Your task to perform on an android device: Open Google Chrome and open the bookmarks view Image 0: 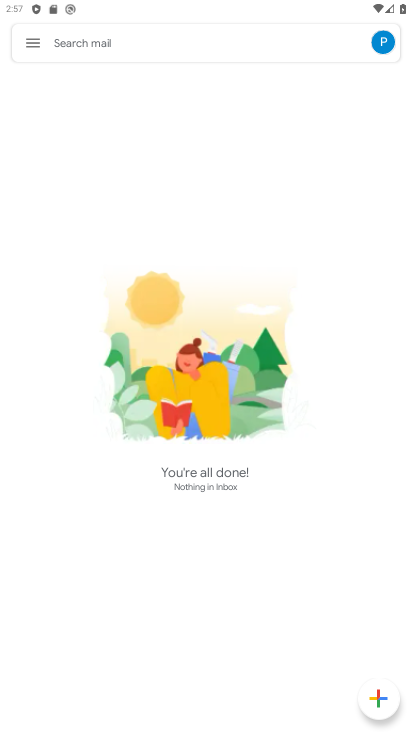
Step 0: press home button
Your task to perform on an android device: Open Google Chrome and open the bookmarks view Image 1: 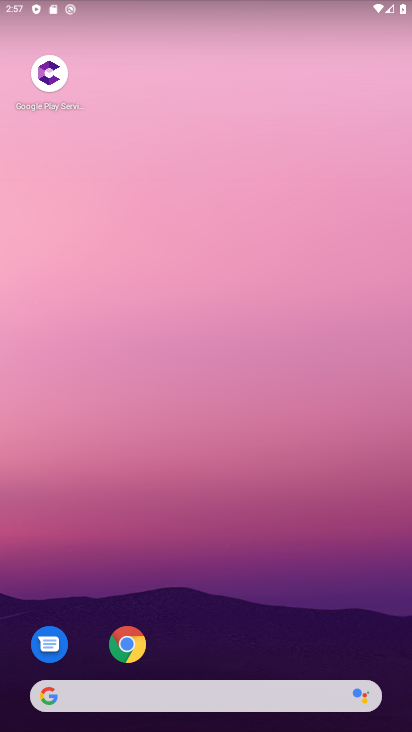
Step 1: drag from (338, 296) to (279, 46)
Your task to perform on an android device: Open Google Chrome and open the bookmarks view Image 2: 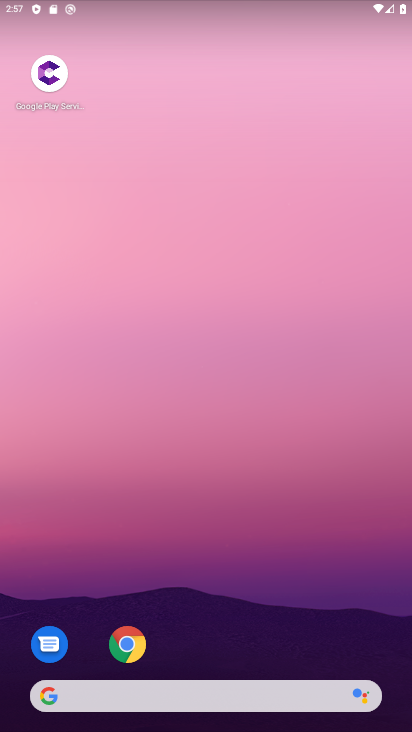
Step 2: drag from (272, 591) to (217, 114)
Your task to perform on an android device: Open Google Chrome and open the bookmarks view Image 3: 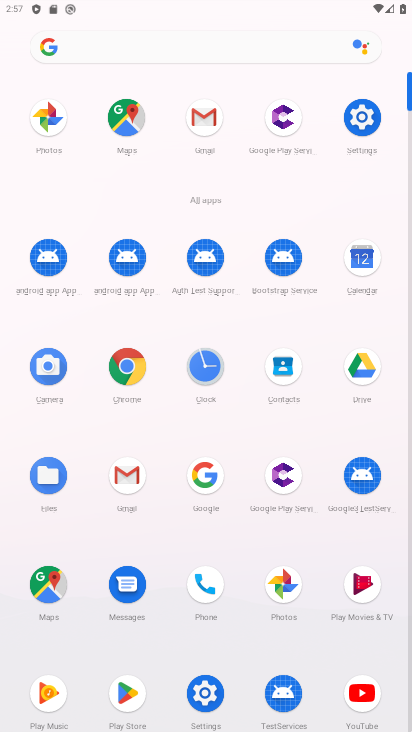
Step 3: click (127, 363)
Your task to perform on an android device: Open Google Chrome and open the bookmarks view Image 4: 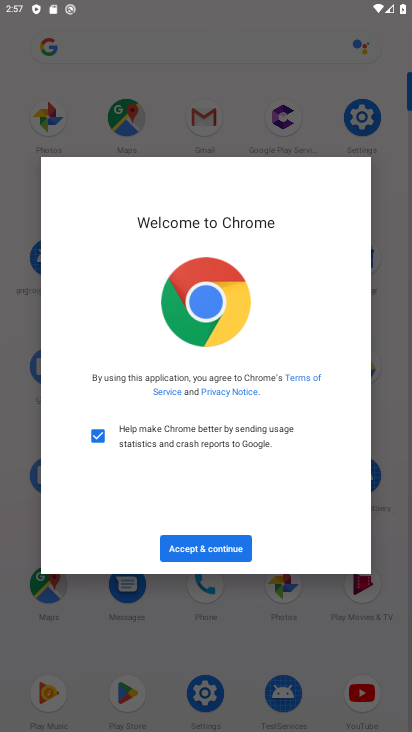
Step 4: click (239, 549)
Your task to perform on an android device: Open Google Chrome and open the bookmarks view Image 5: 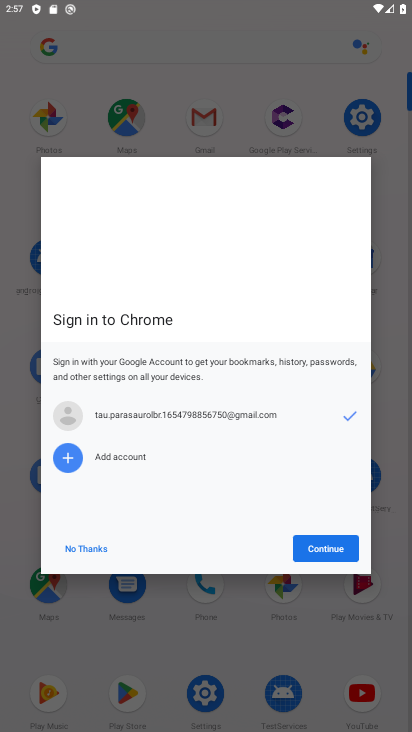
Step 5: click (334, 543)
Your task to perform on an android device: Open Google Chrome and open the bookmarks view Image 6: 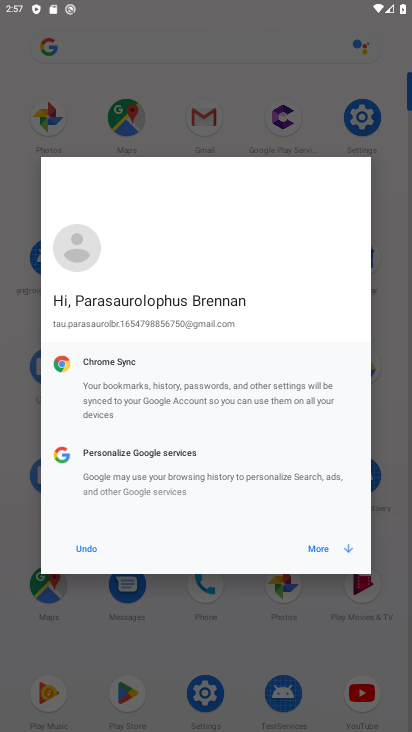
Step 6: click (336, 543)
Your task to perform on an android device: Open Google Chrome and open the bookmarks view Image 7: 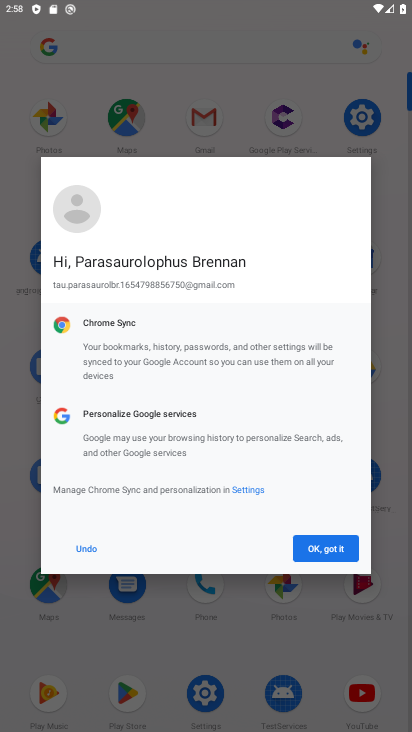
Step 7: click (338, 547)
Your task to perform on an android device: Open Google Chrome and open the bookmarks view Image 8: 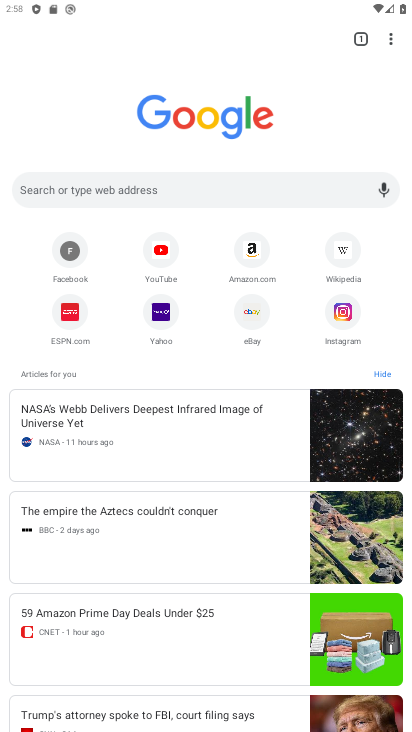
Step 8: task complete